Your task to perform on an android device: Go to battery settings Image 0: 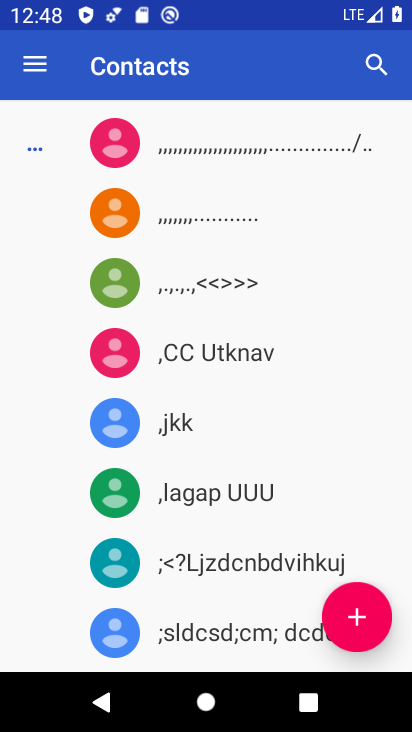
Step 0: press home button
Your task to perform on an android device: Go to battery settings Image 1: 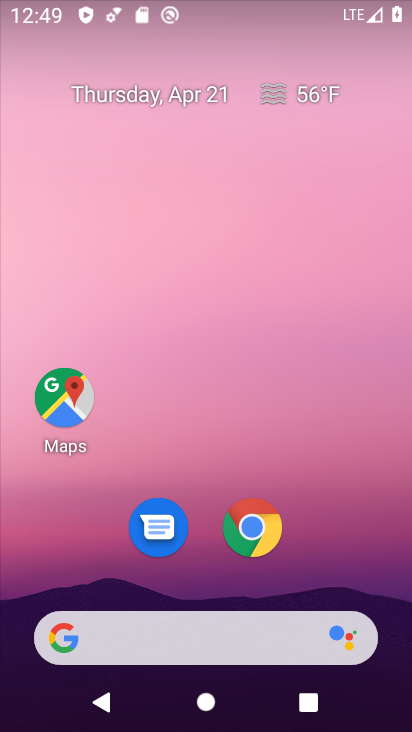
Step 1: drag from (198, 576) to (231, 103)
Your task to perform on an android device: Go to battery settings Image 2: 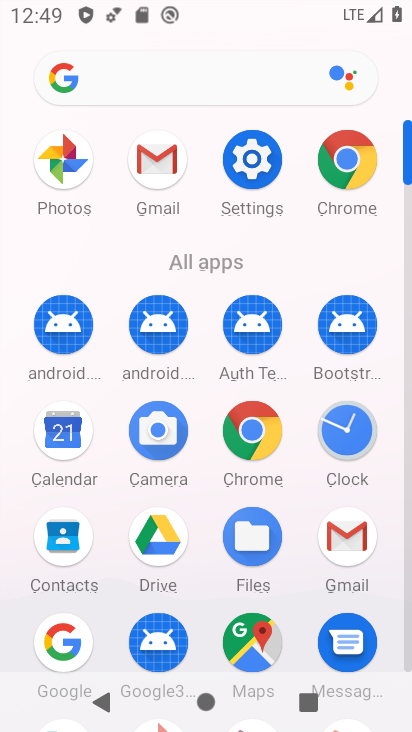
Step 2: click (245, 186)
Your task to perform on an android device: Go to battery settings Image 3: 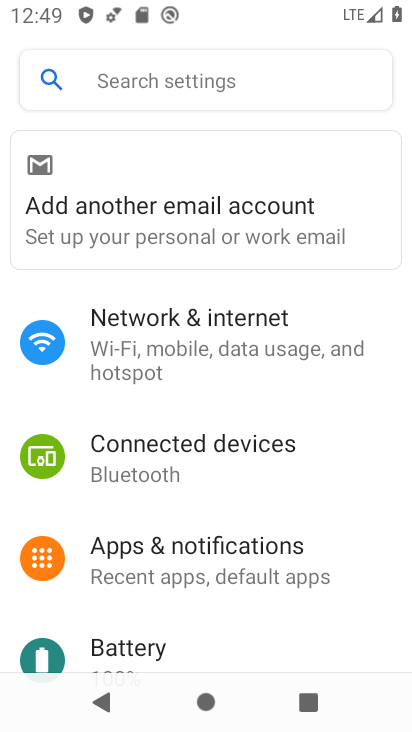
Step 3: click (153, 644)
Your task to perform on an android device: Go to battery settings Image 4: 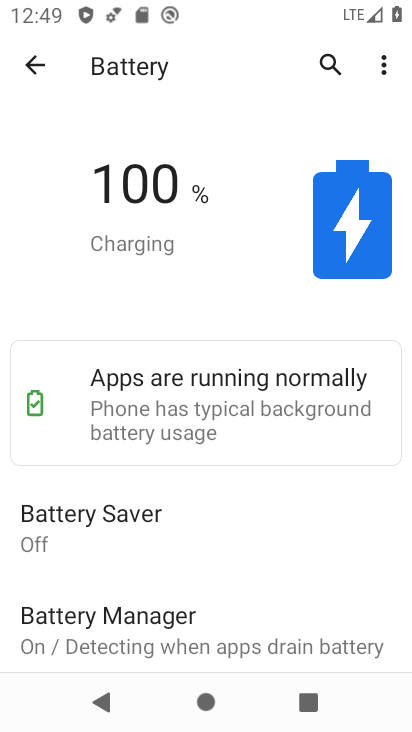
Step 4: task complete